Your task to perform on an android device: install app "YouTube Kids" Image 0: 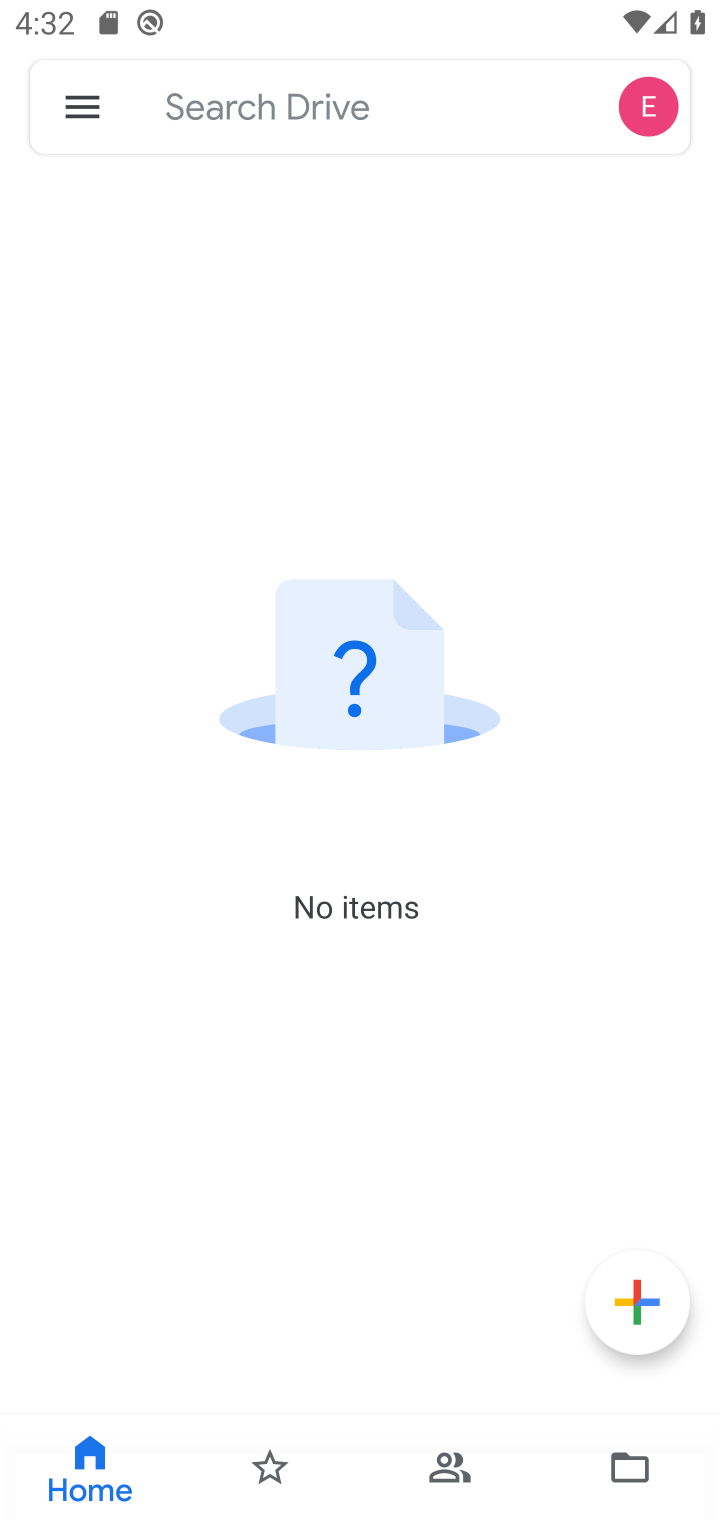
Step 0: press home button
Your task to perform on an android device: install app "YouTube Kids" Image 1: 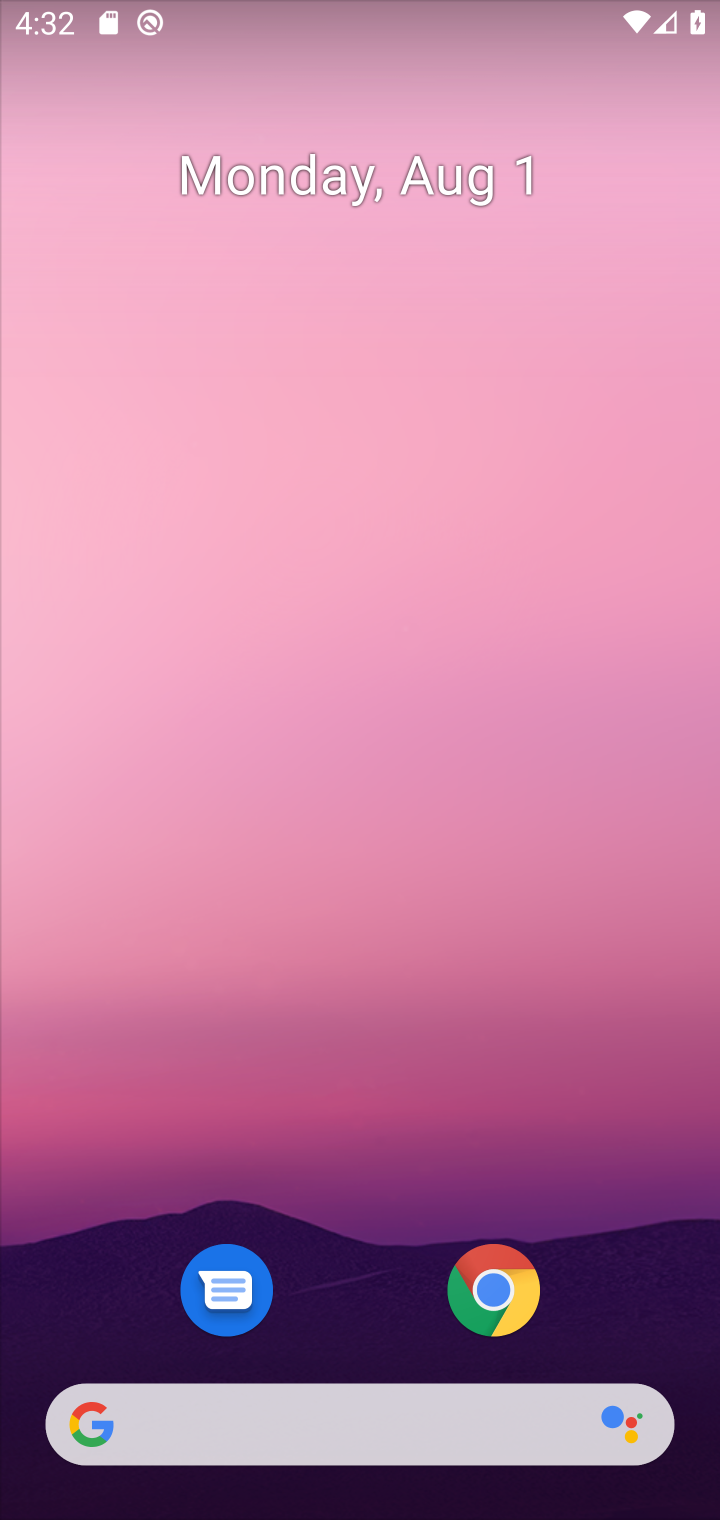
Step 1: drag from (420, 1425) to (394, 202)
Your task to perform on an android device: install app "YouTube Kids" Image 2: 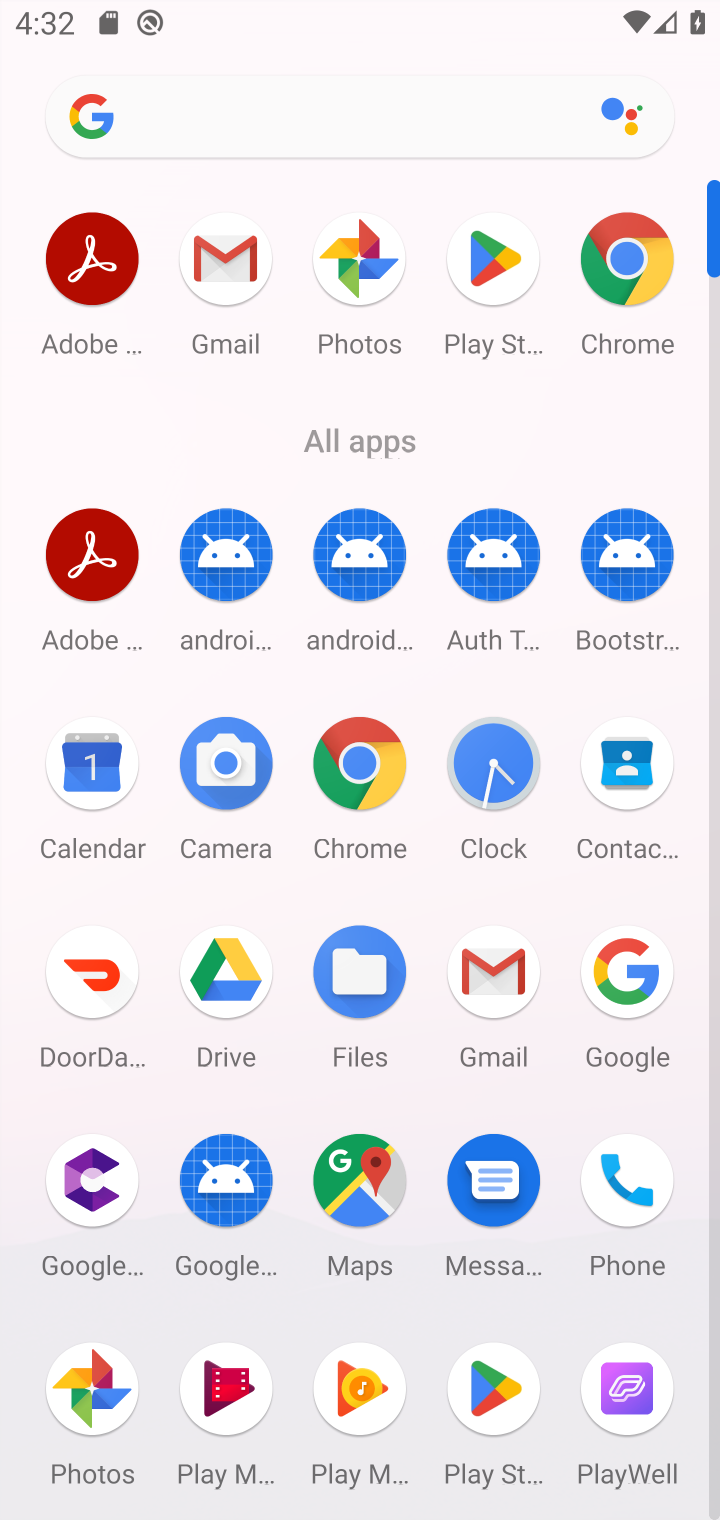
Step 2: click (481, 245)
Your task to perform on an android device: install app "YouTube Kids" Image 3: 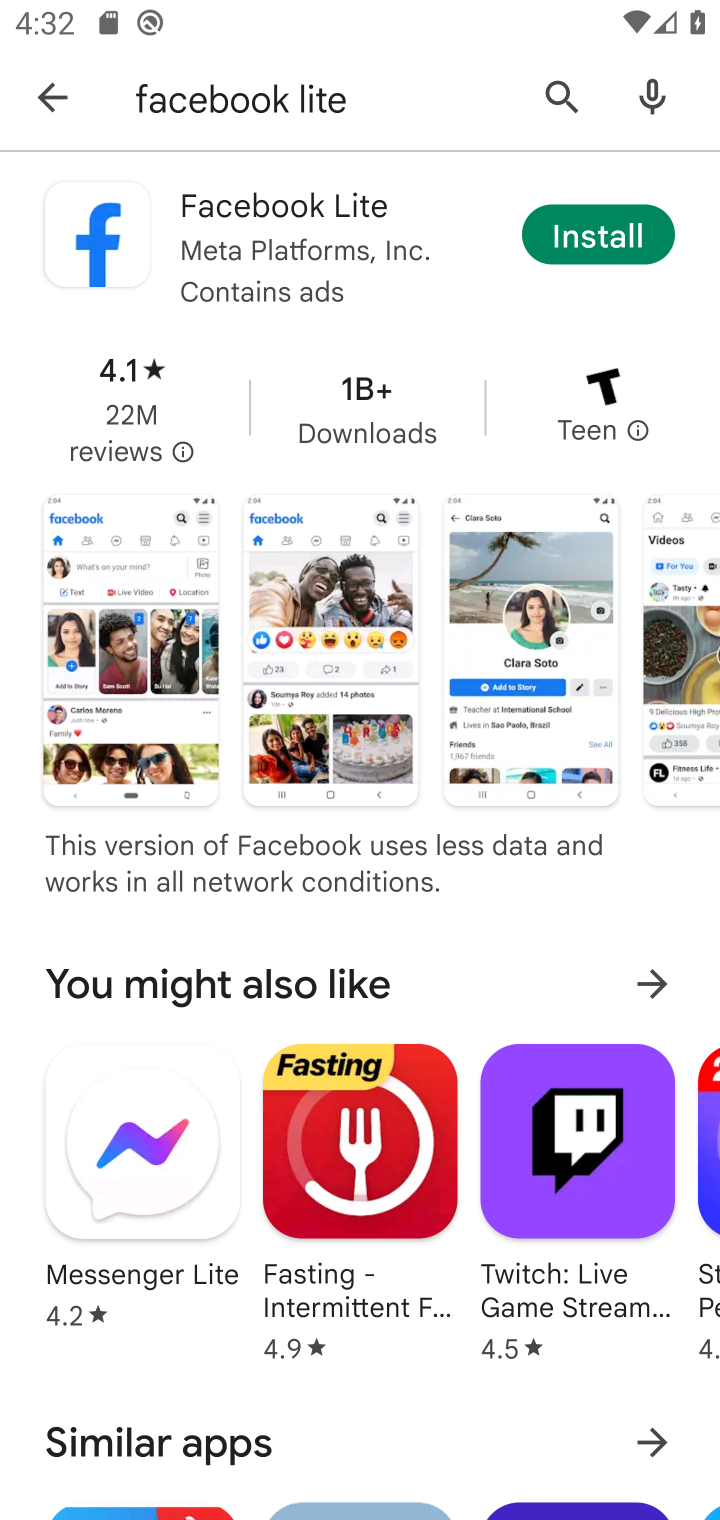
Step 3: click (545, 96)
Your task to perform on an android device: install app "YouTube Kids" Image 4: 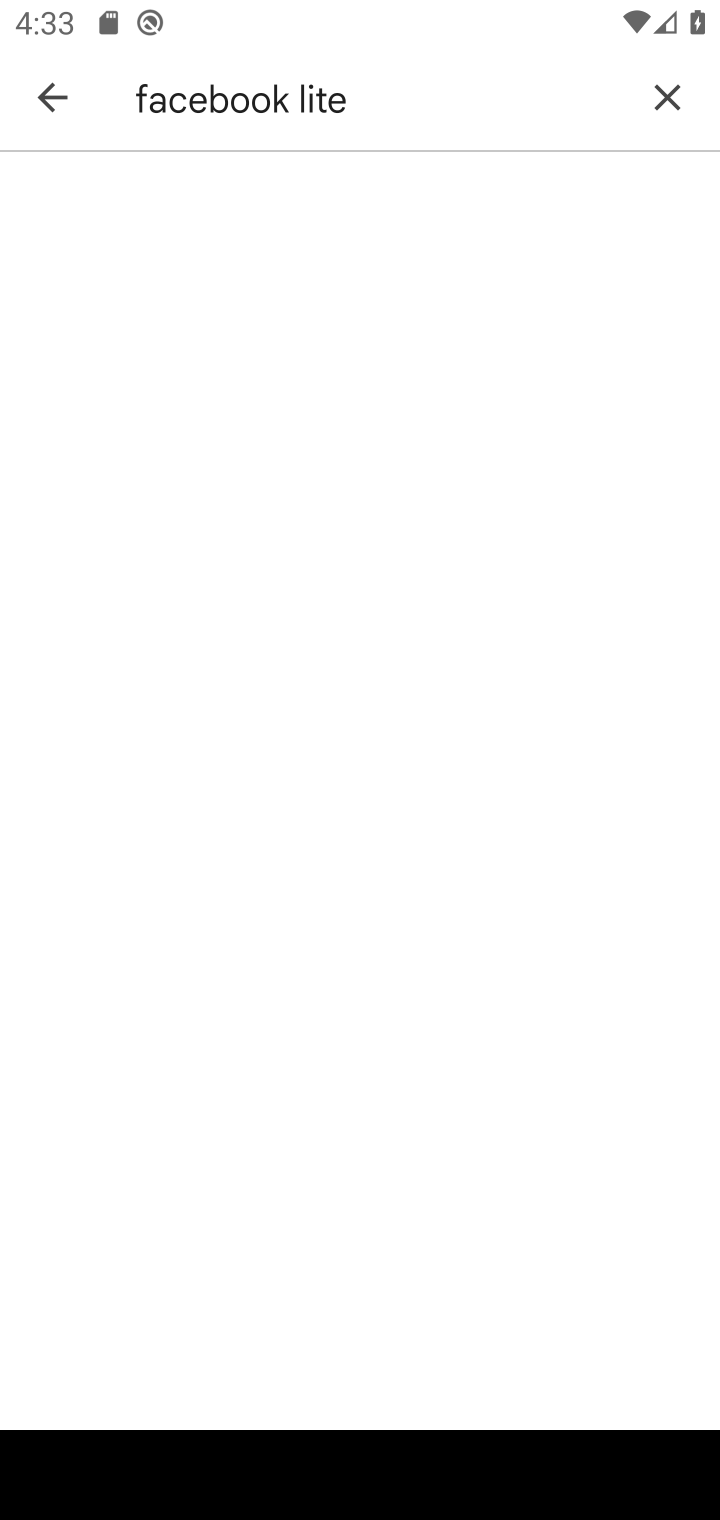
Step 4: click (669, 96)
Your task to perform on an android device: install app "YouTube Kids" Image 5: 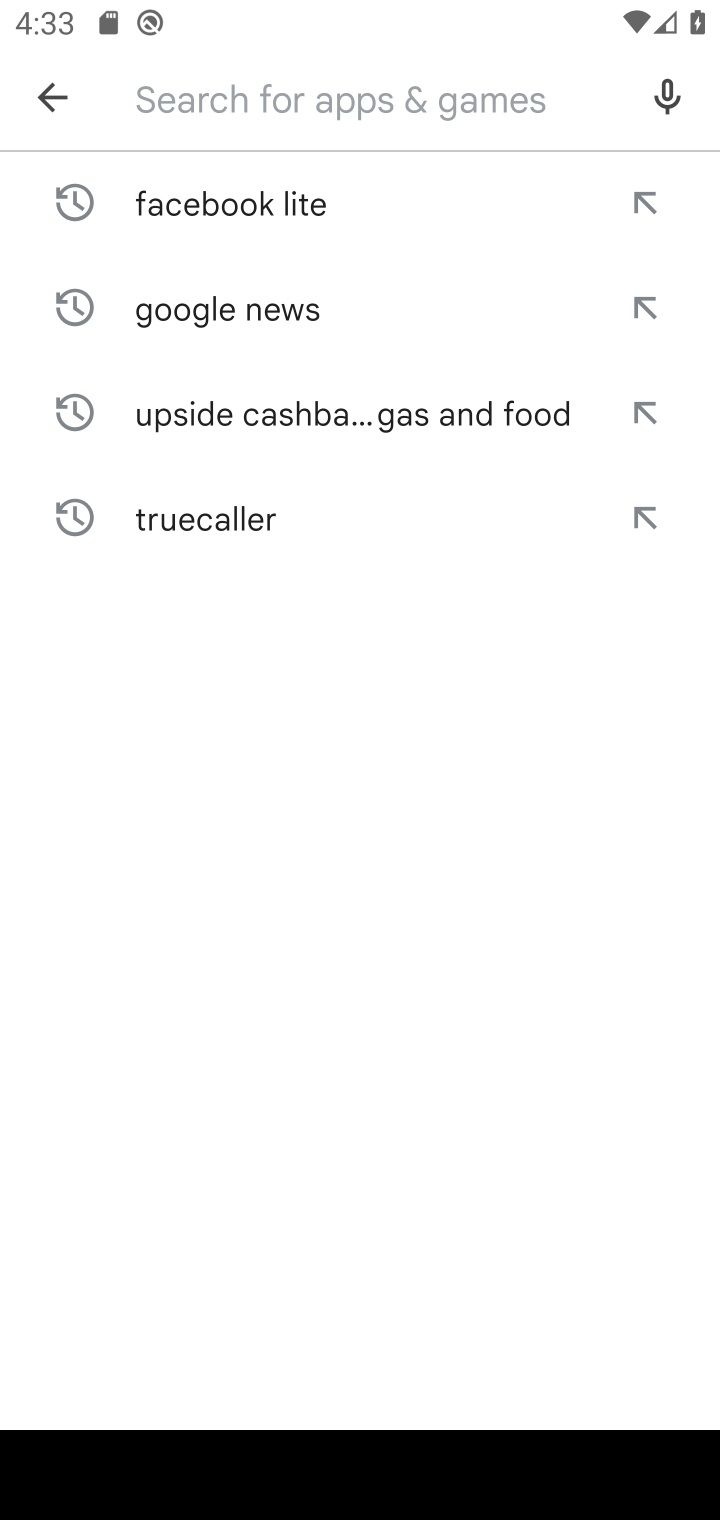
Step 5: type "you tube kids"
Your task to perform on an android device: install app "YouTube Kids" Image 6: 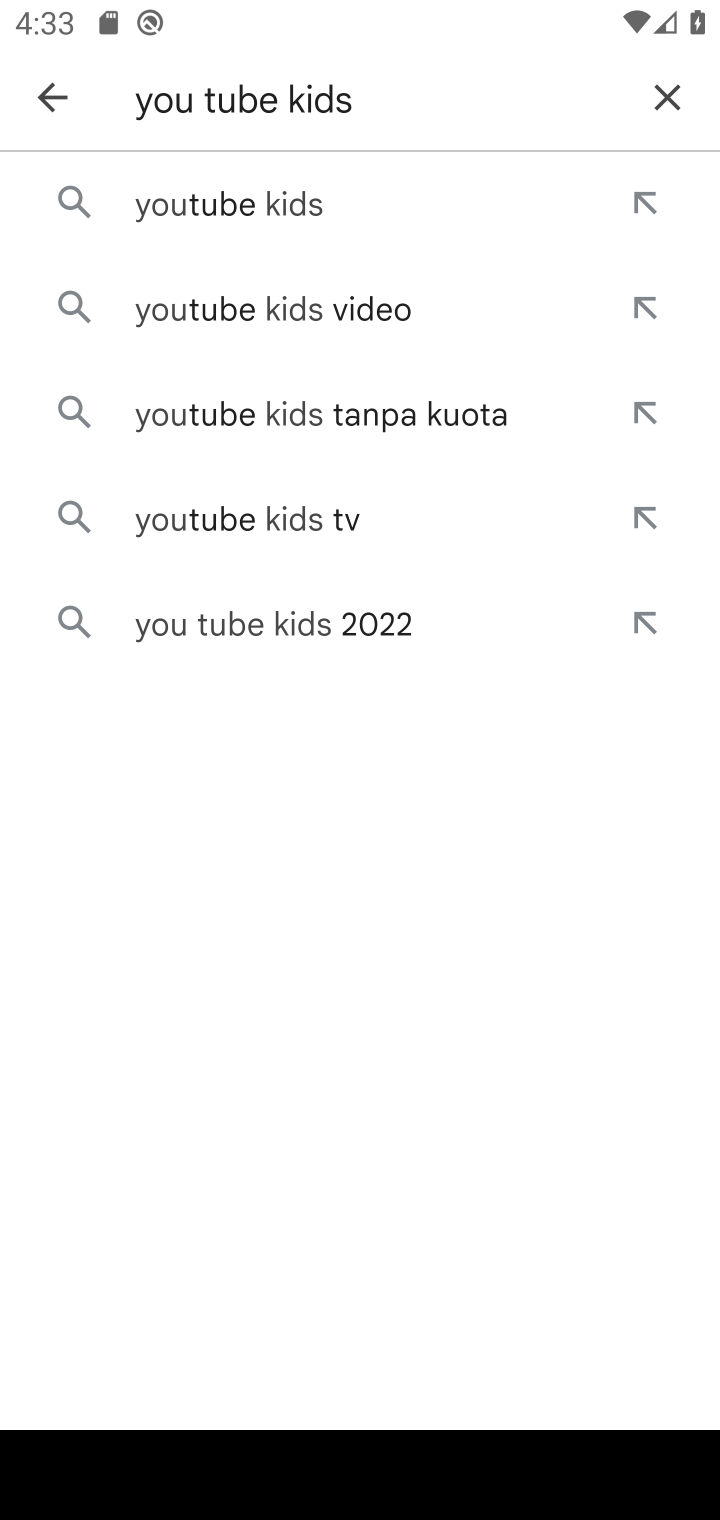
Step 6: click (270, 198)
Your task to perform on an android device: install app "YouTube Kids" Image 7: 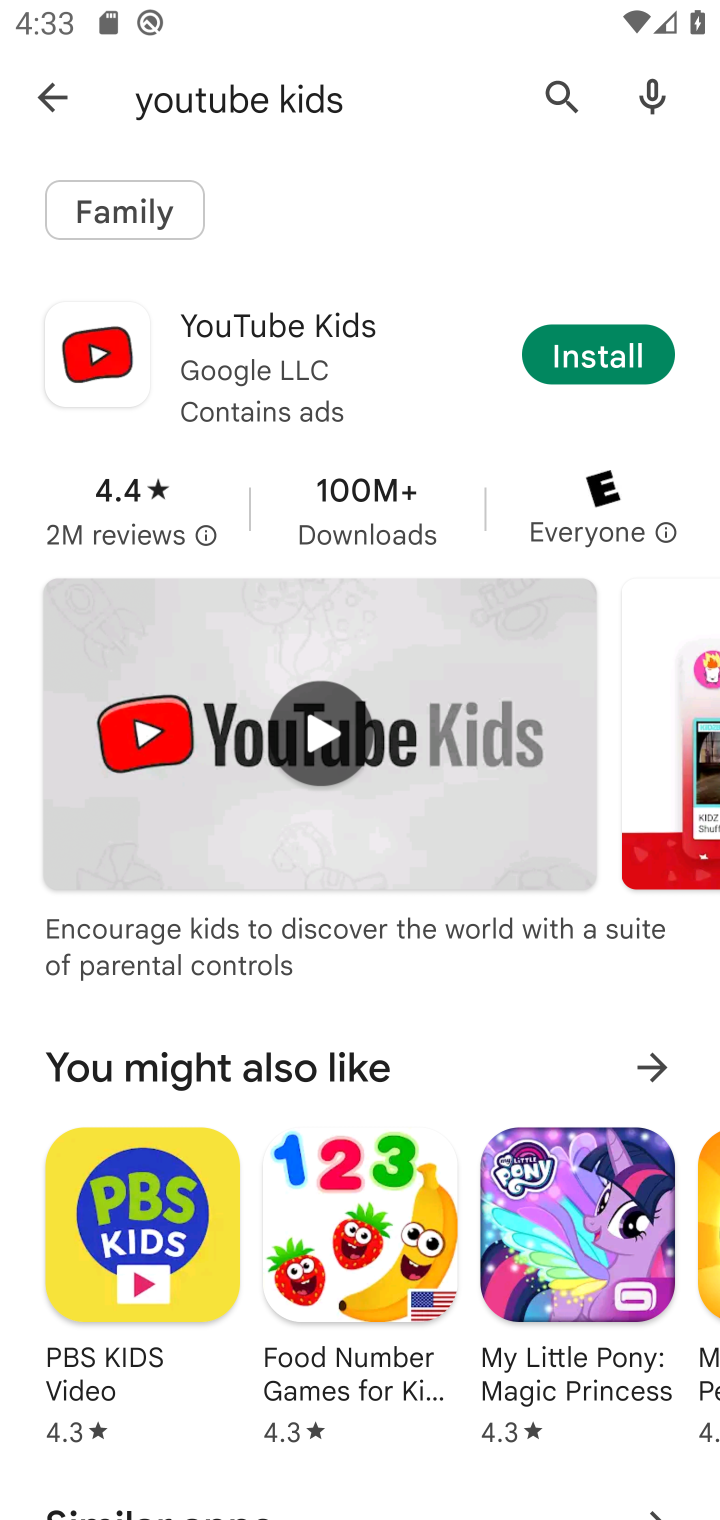
Step 7: click (608, 347)
Your task to perform on an android device: install app "YouTube Kids" Image 8: 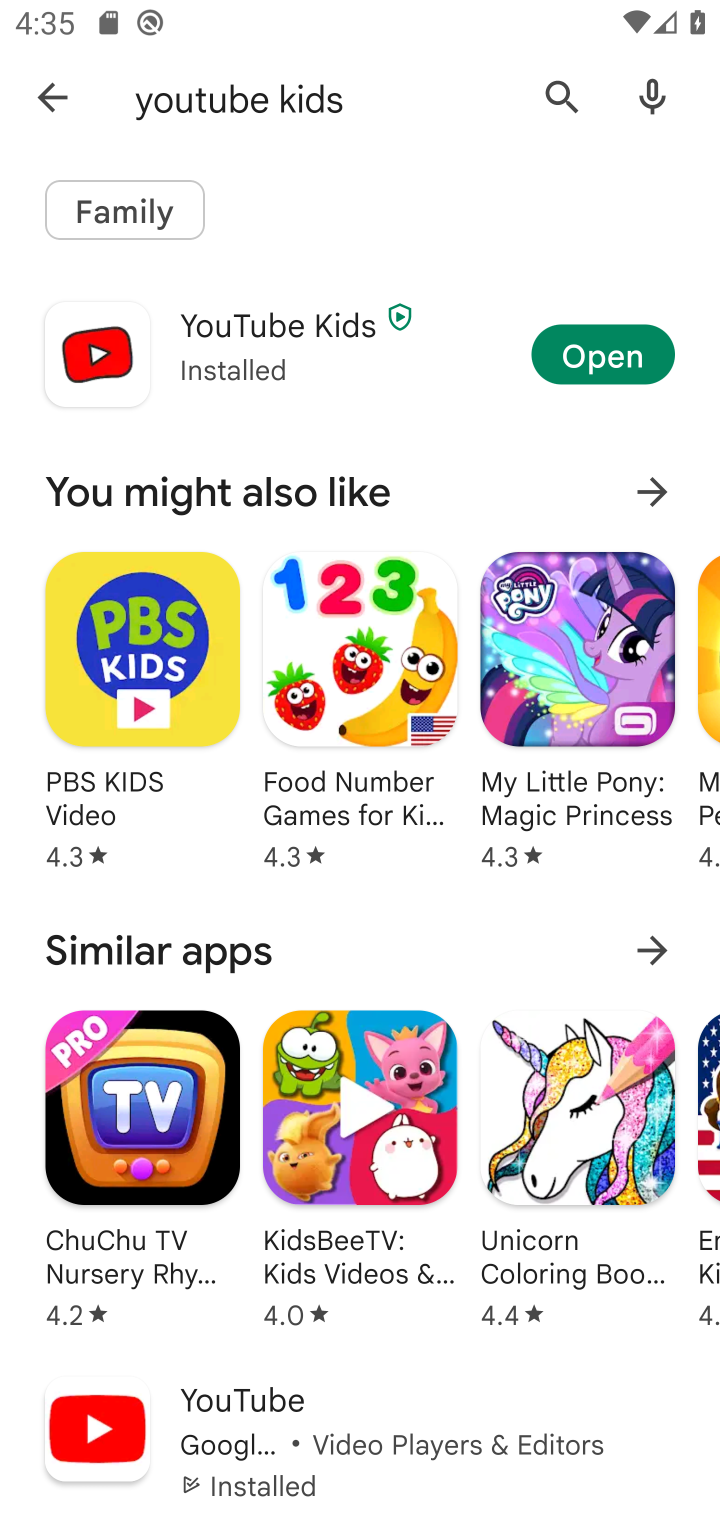
Step 8: task complete